Your task to perform on an android device: turn on priority inbox in the gmail app Image 0: 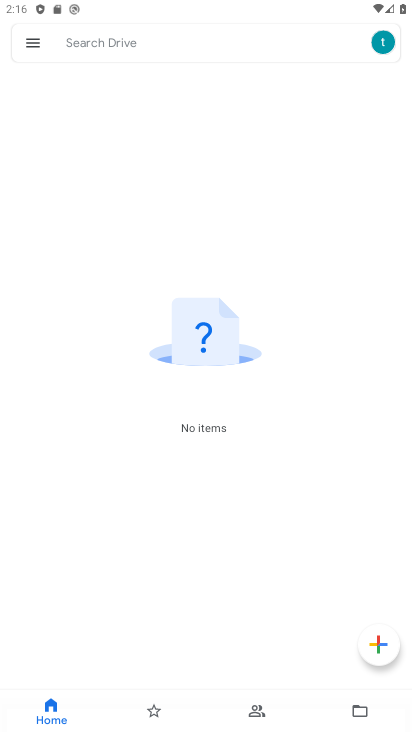
Step 0: press home button
Your task to perform on an android device: turn on priority inbox in the gmail app Image 1: 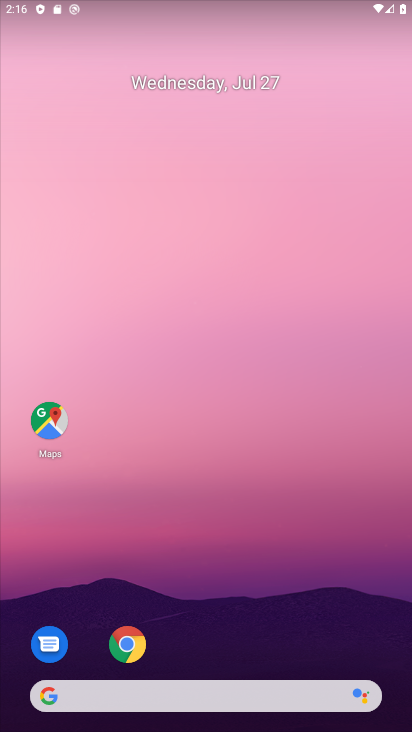
Step 1: drag from (220, 551) to (243, 1)
Your task to perform on an android device: turn on priority inbox in the gmail app Image 2: 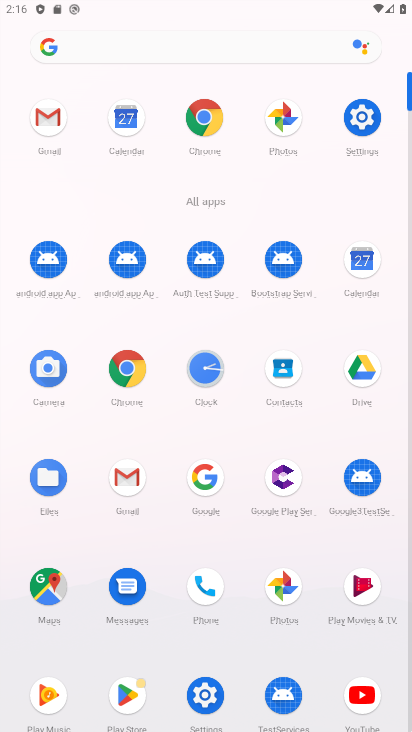
Step 2: click (138, 494)
Your task to perform on an android device: turn on priority inbox in the gmail app Image 3: 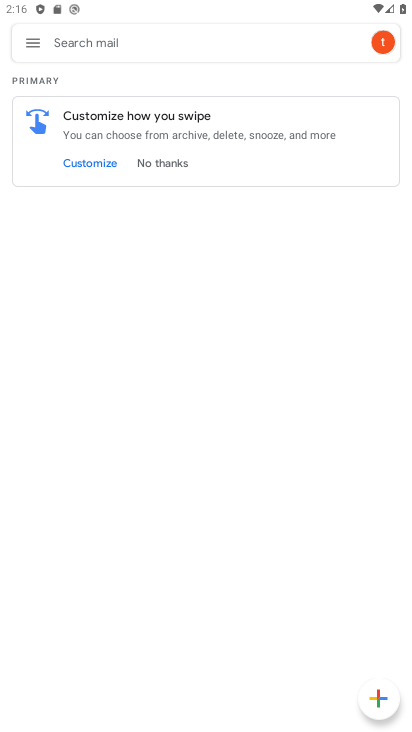
Step 3: click (35, 45)
Your task to perform on an android device: turn on priority inbox in the gmail app Image 4: 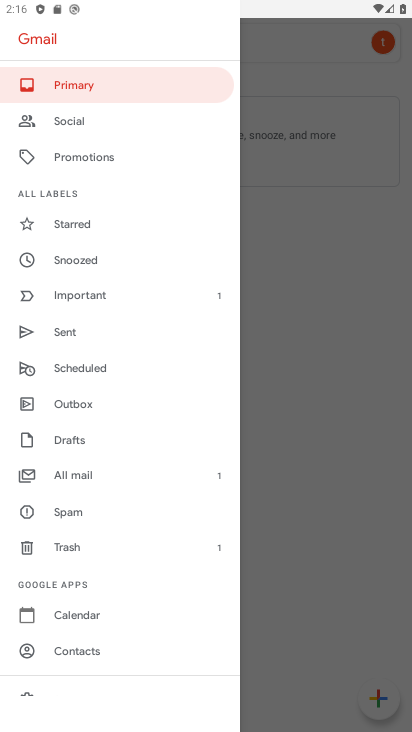
Step 4: drag from (92, 648) to (123, 251)
Your task to perform on an android device: turn on priority inbox in the gmail app Image 5: 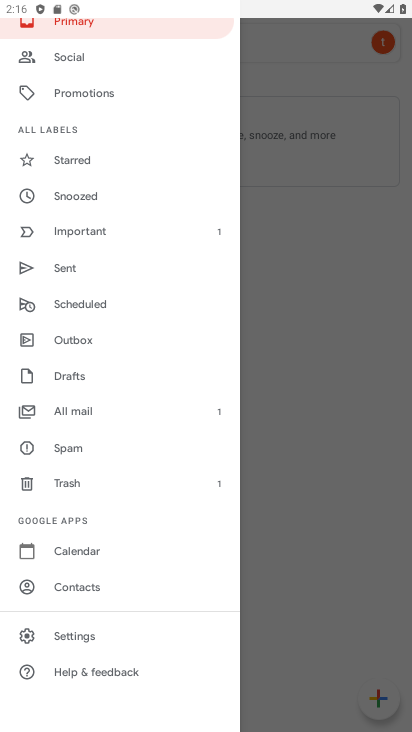
Step 5: click (77, 638)
Your task to perform on an android device: turn on priority inbox in the gmail app Image 6: 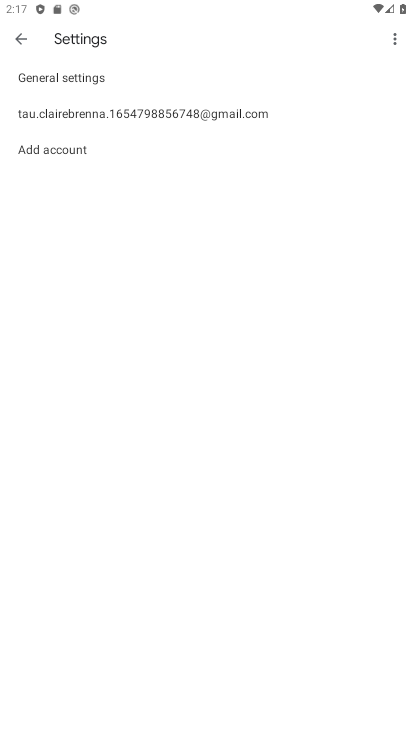
Step 6: click (113, 112)
Your task to perform on an android device: turn on priority inbox in the gmail app Image 7: 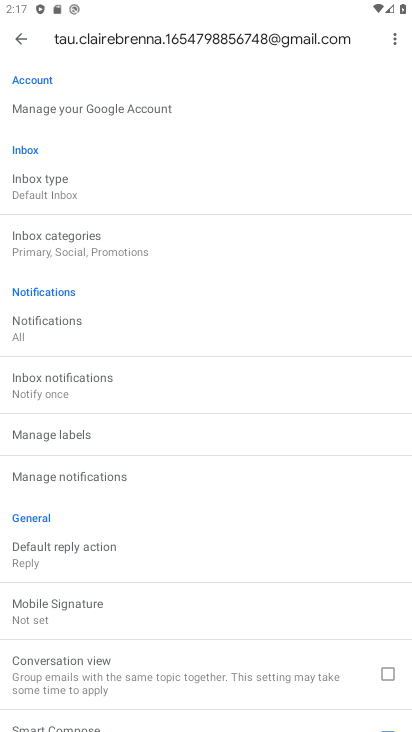
Step 7: click (70, 184)
Your task to perform on an android device: turn on priority inbox in the gmail app Image 8: 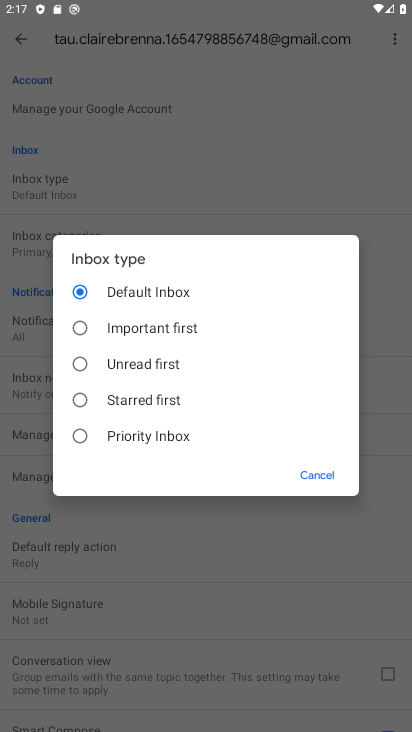
Step 8: click (114, 442)
Your task to perform on an android device: turn on priority inbox in the gmail app Image 9: 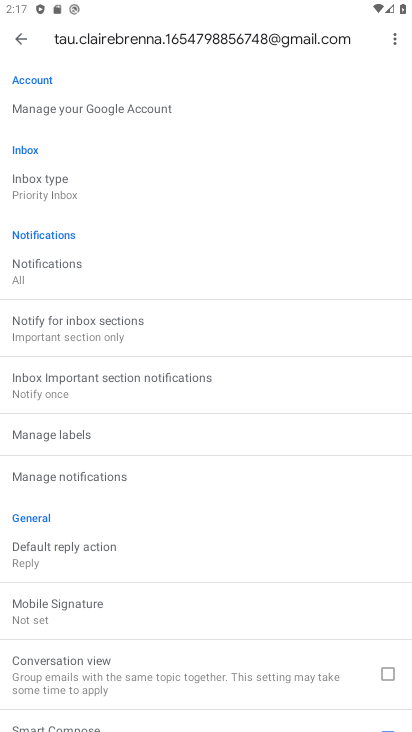
Step 9: task complete